Your task to perform on an android device: move a message to another label in the gmail app Image 0: 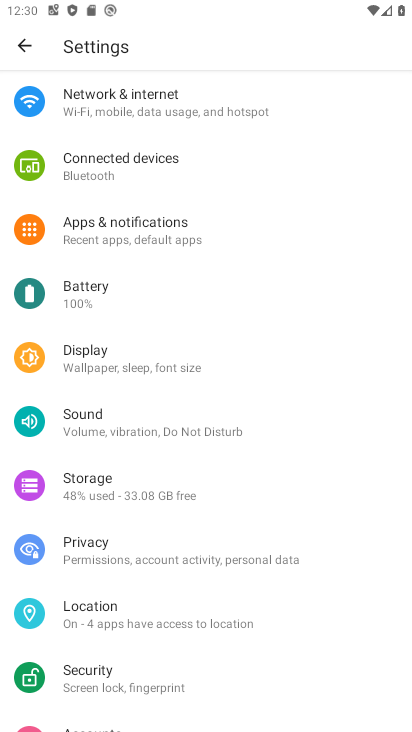
Step 0: press home button
Your task to perform on an android device: move a message to another label in the gmail app Image 1: 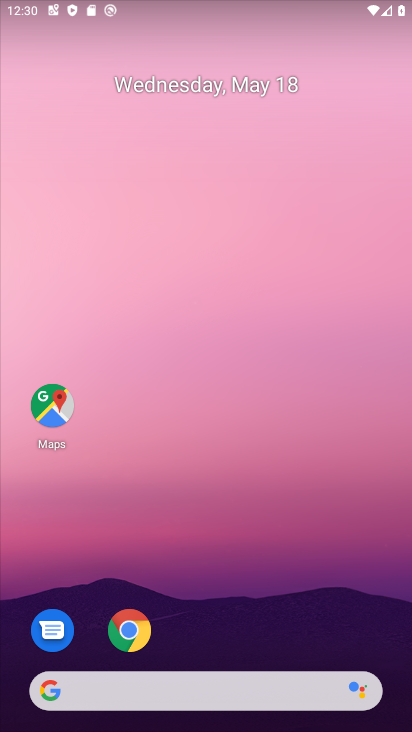
Step 1: drag from (164, 554) to (312, 138)
Your task to perform on an android device: move a message to another label in the gmail app Image 2: 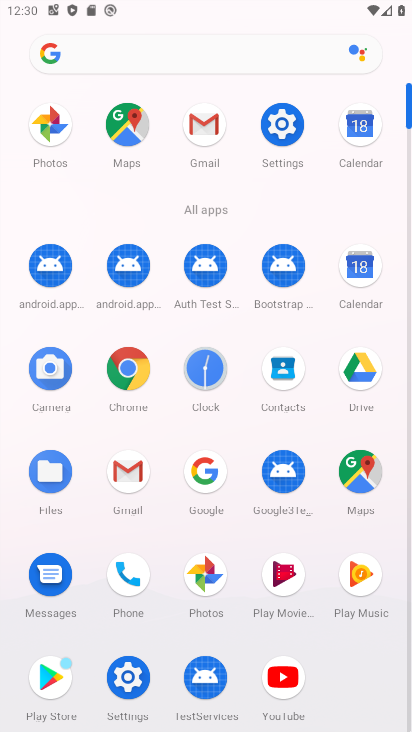
Step 2: click (135, 490)
Your task to perform on an android device: move a message to another label in the gmail app Image 3: 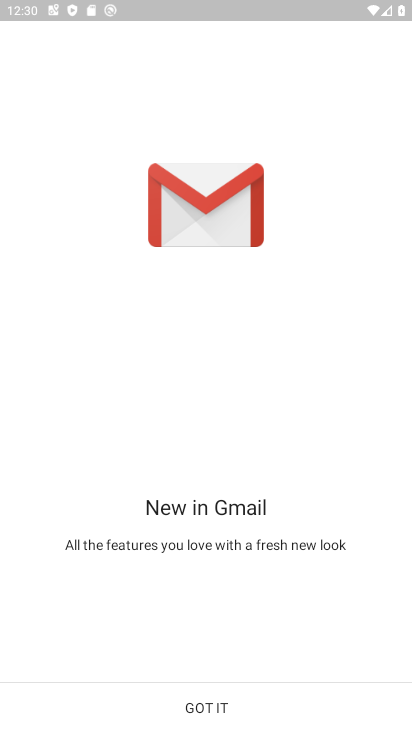
Step 3: click (239, 720)
Your task to perform on an android device: move a message to another label in the gmail app Image 4: 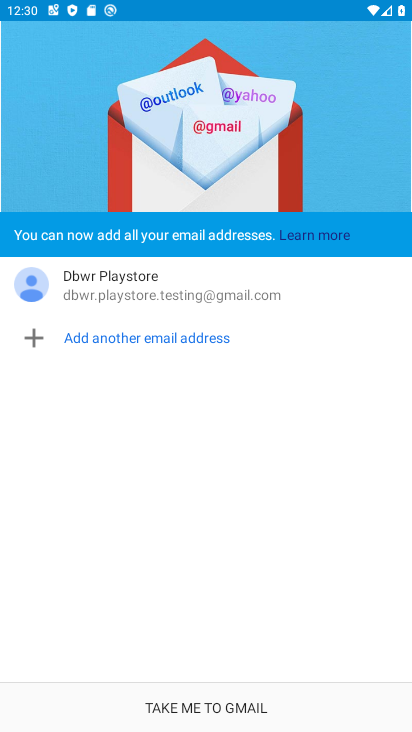
Step 4: click (238, 719)
Your task to perform on an android device: move a message to another label in the gmail app Image 5: 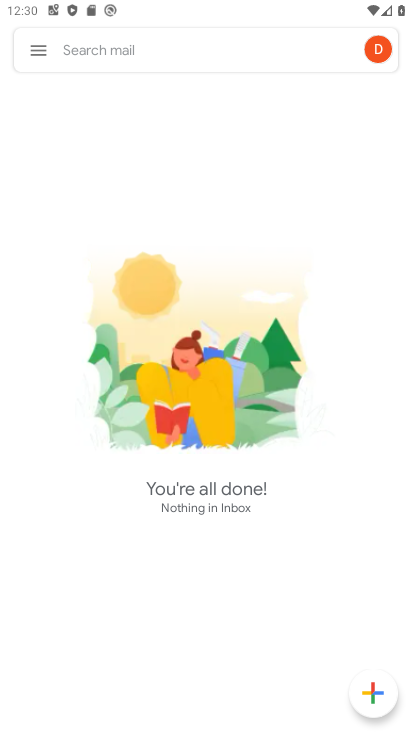
Step 5: click (49, 54)
Your task to perform on an android device: move a message to another label in the gmail app Image 6: 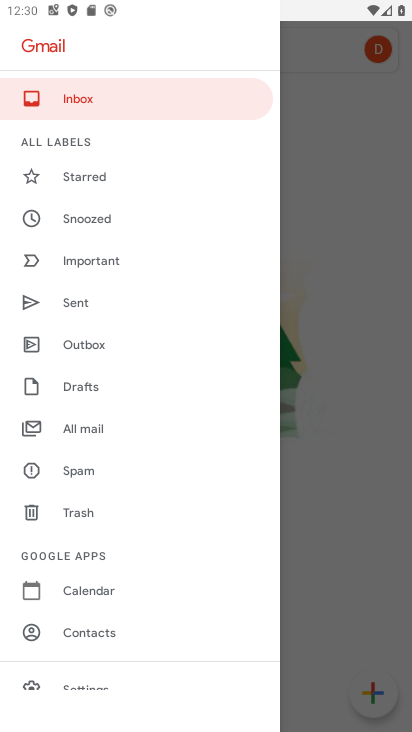
Step 6: click (126, 424)
Your task to perform on an android device: move a message to another label in the gmail app Image 7: 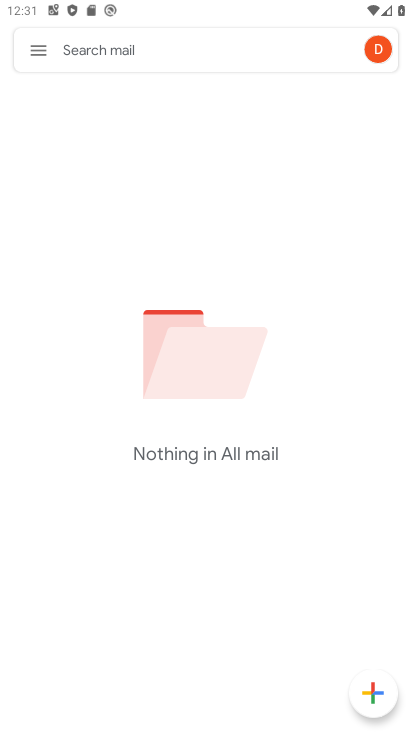
Step 7: task complete